Your task to perform on an android device: toggle data saver in the chrome app Image 0: 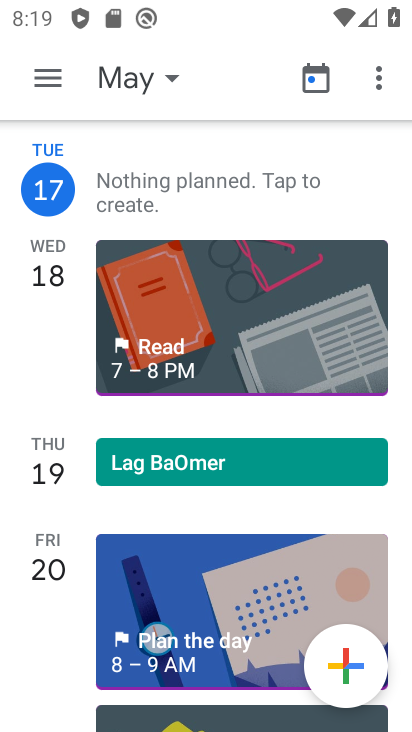
Step 0: click (41, 86)
Your task to perform on an android device: toggle data saver in the chrome app Image 1: 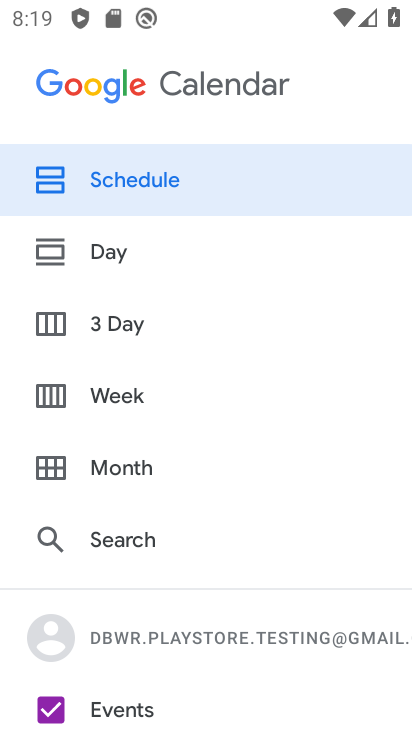
Step 1: drag from (142, 618) to (133, 283)
Your task to perform on an android device: toggle data saver in the chrome app Image 2: 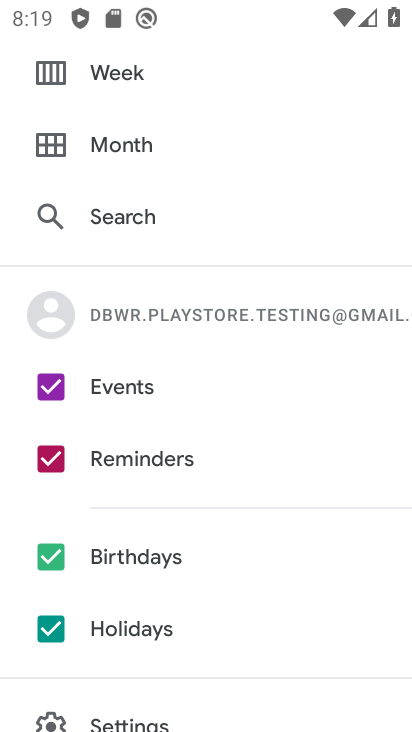
Step 2: press home button
Your task to perform on an android device: toggle data saver in the chrome app Image 3: 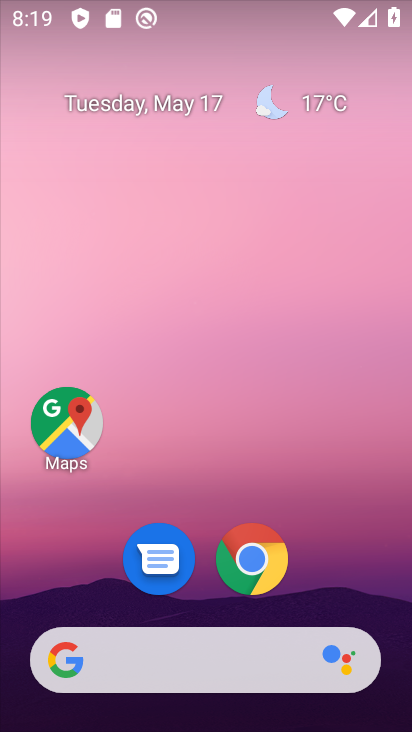
Step 3: click (245, 574)
Your task to perform on an android device: toggle data saver in the chrome app Image 4: 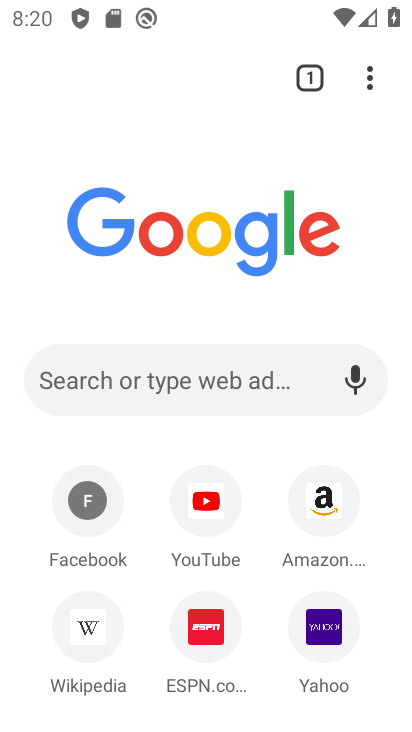
Step 4: click (368, 82)
Your task to perform on an android device: toggle data saver in the chrome app Image 5: 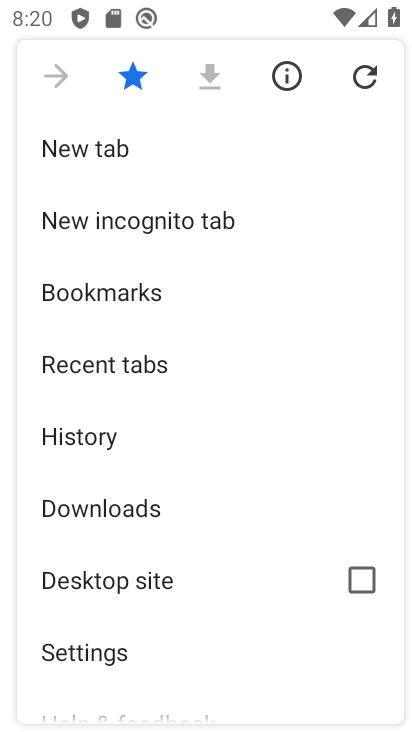
Step 5: click (164, 643)
Your task to perform on an android device: toggle data saver in the chrome app Image 6: 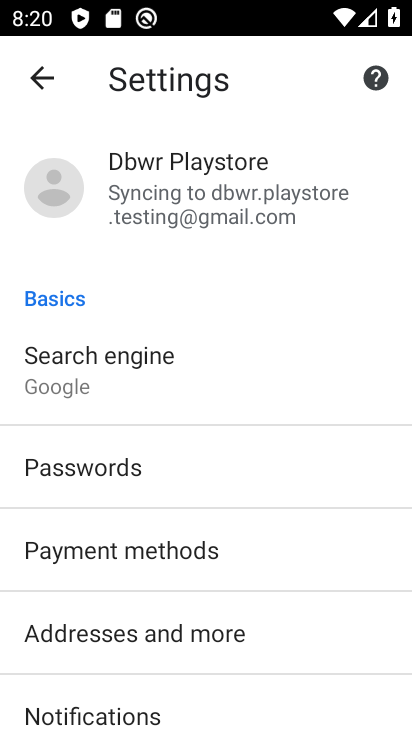
Step 6: drag from (154, 669) to (160, 269)
Your task to perform on an android device: toggle data saver in the chrome app Image 7: 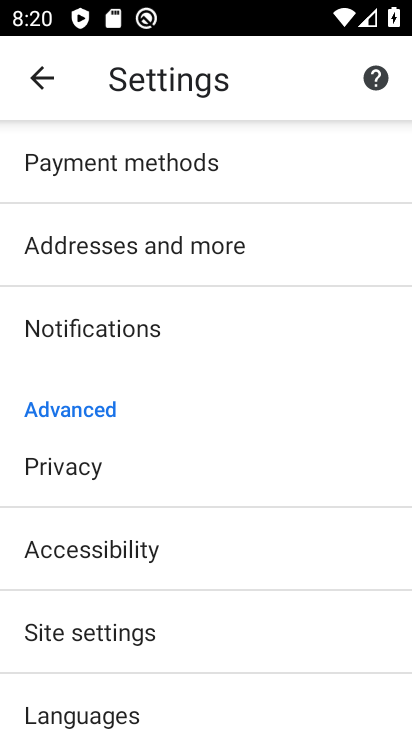
Step 7: drag from (157, 669) to (116, 275)
Your task to perform on an android device: toggle data saver in the chrome app Image 8: 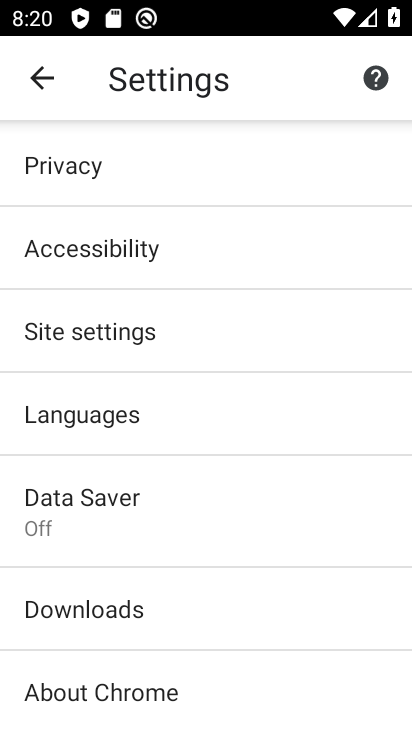
Step 8: click (136, 512)
Your task to perform on an android device: toggle data saver in the chrome app Image 9: 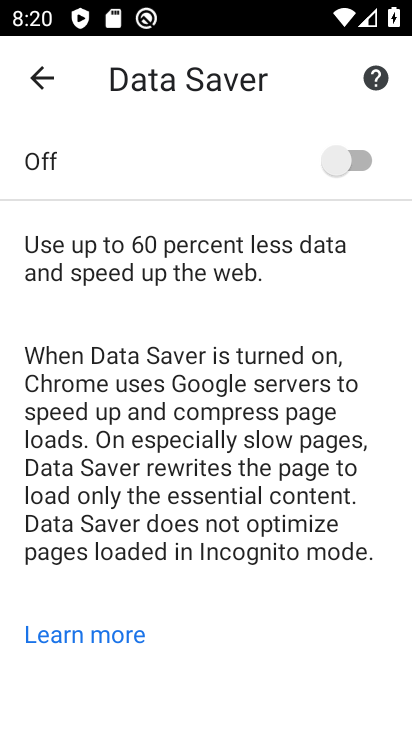
Step 9: click (353, 157)
Your task to perform on an android device: toggle data saver in the chrome app Image 10: 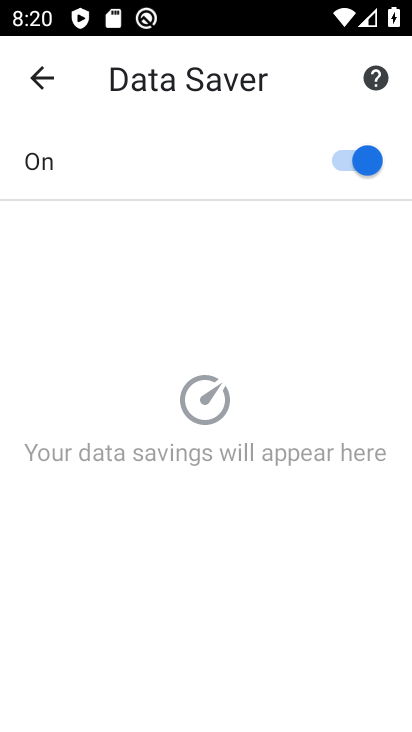
Step 10: task complete